Your task to perform on an android device: check battery use Image 0: 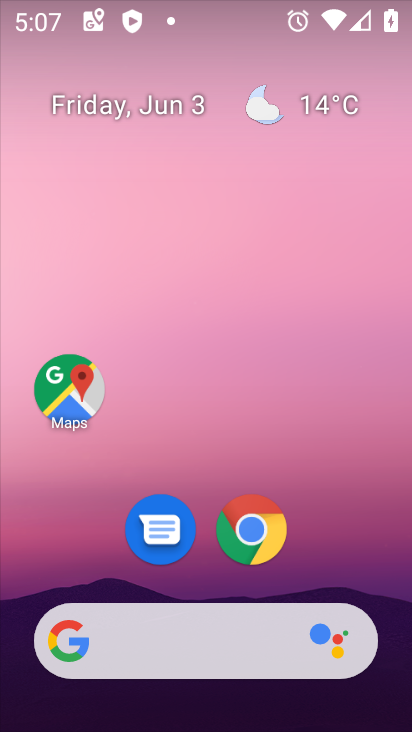
Step 0: press home button
Your task to perform on an android device: check battery use Image 1: 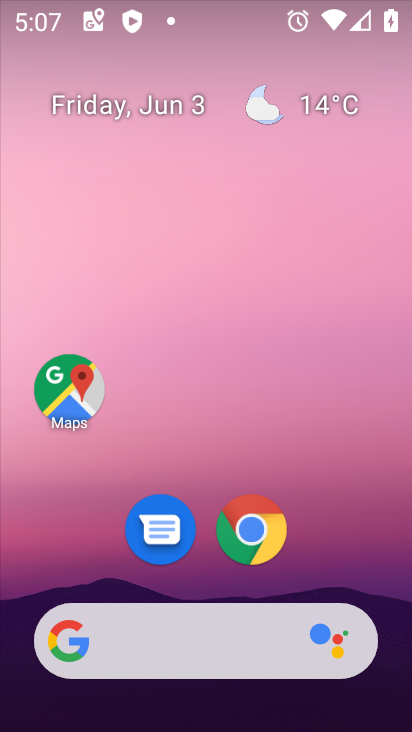
Step 1: drag from (207, 579) to (206, 28)
Your task to perform on an android device: check battery use Image 2: 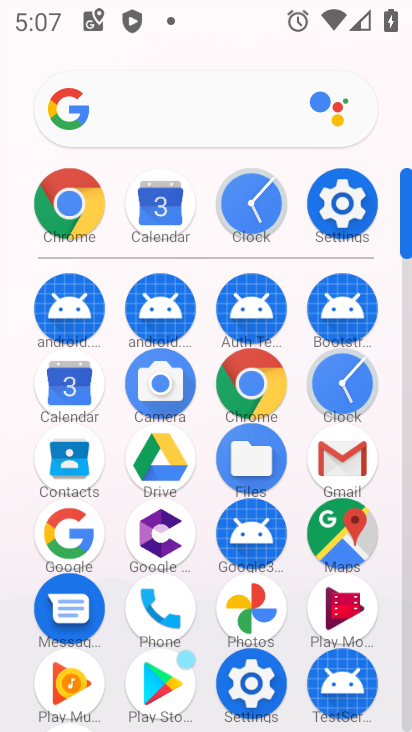
Step 2: click (344, 195)
Your task to perform on an android device: check battery use Image 3: 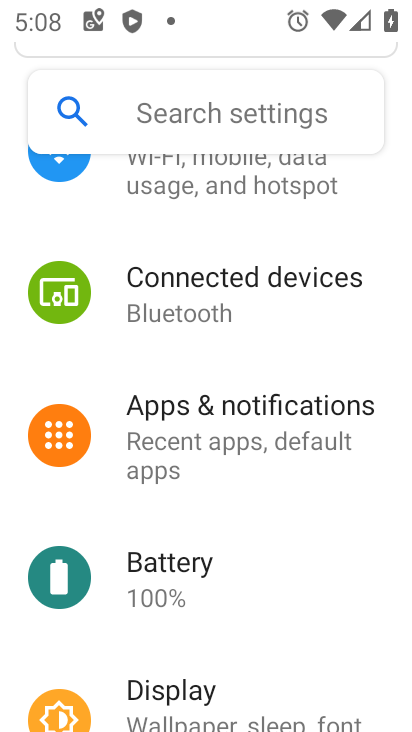
Step 3: click (222, 591)
Your task to perform on an android device: check battery use Image 4: 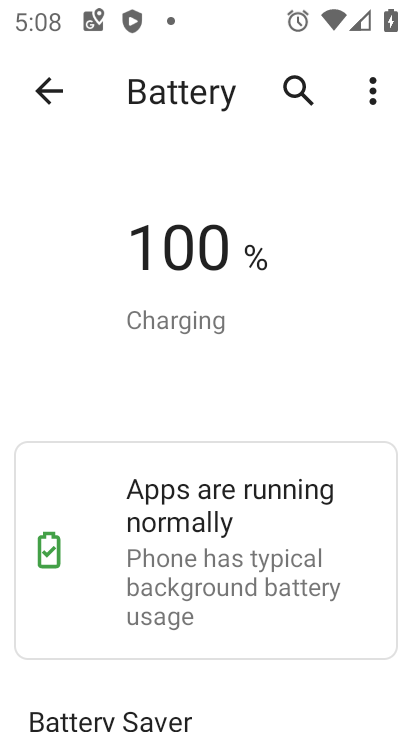
Step 4: drag from (237, 521) to (243, 258)
Your task to perform on an android device: check battery use Image 5: 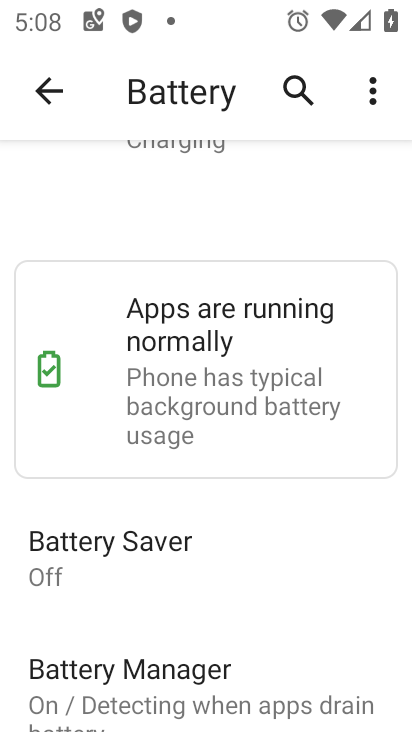
Step 5: click (374, 88)
Your task to perform on an android device: check battery use Image 6: 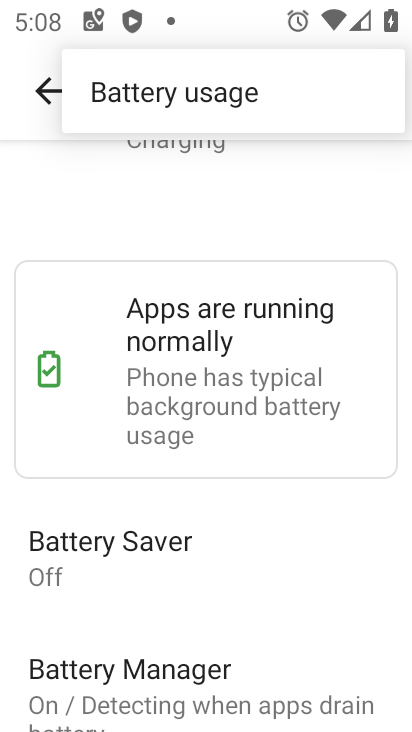
Step 6: click (206, 98)
Your task to perform on an android device: check battery use Image 7: 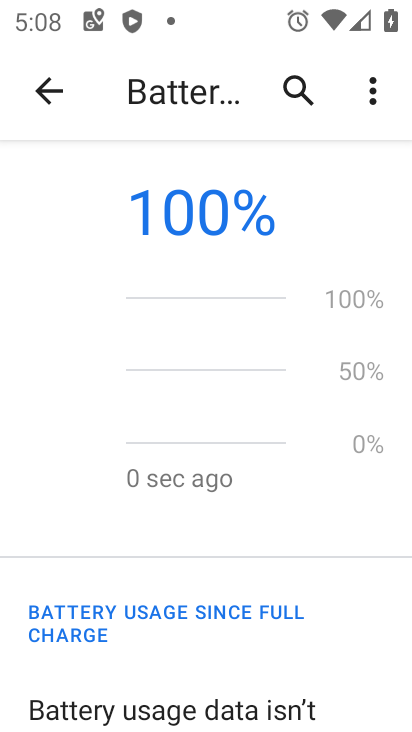
Step 7: task complete